Your task to perform on an android device: Open Maps and search for coffee Image 0: 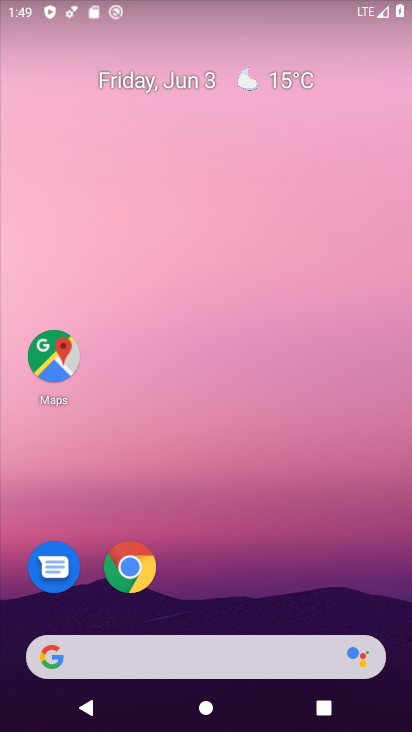
Step 0: click (76, 371)
Your task to perform on an android device: Open Maps and search for coffee Image 1: 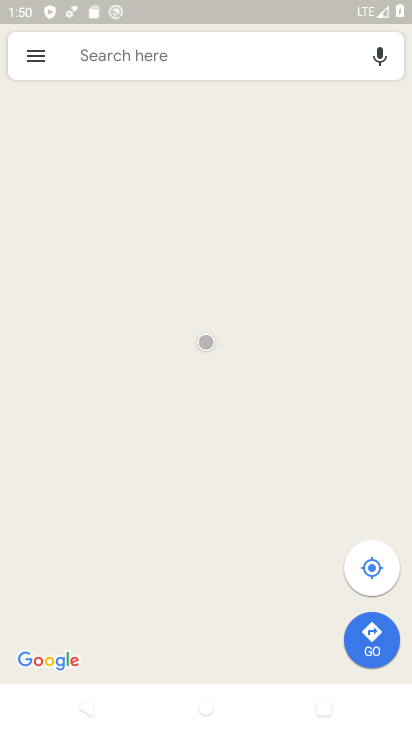
Step 1: click (143, 66)
Your task to perform on an android device: Open Maps and search for coffee Image 2: 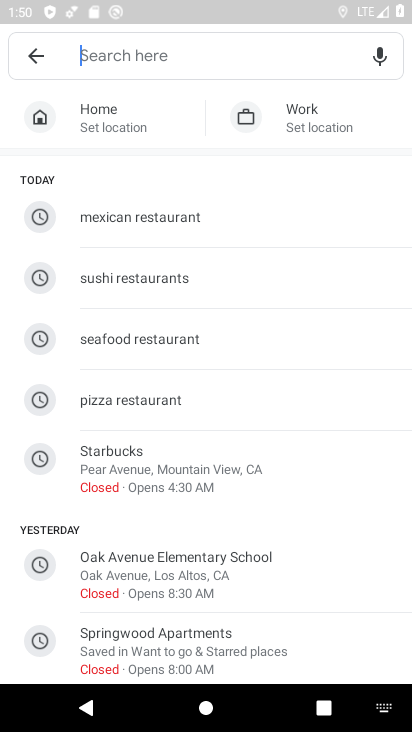
Step 2: type "coffee"
Your task to perform on an android device: Open Maps and search for coffee Image 3: 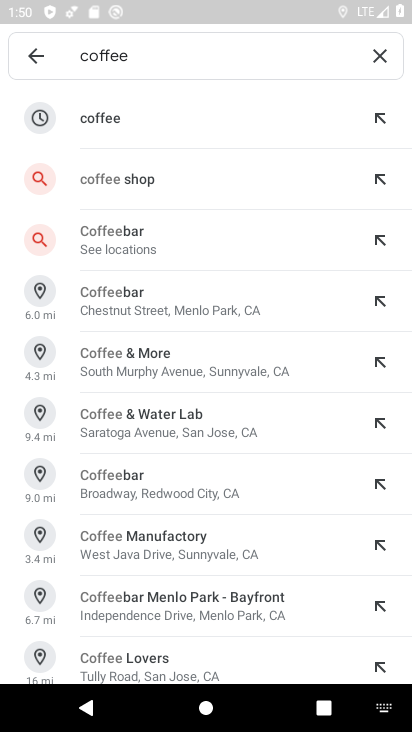
Step 3: click (131, 128)
Your task to perform on an android device: Open Maps and search for coffee Image 4: 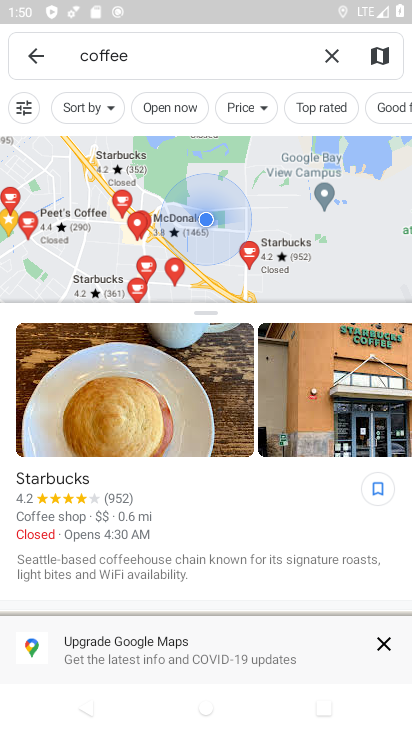
Step 4: task complete